Your task to perform on an android device: Do I have any events this weekend? Image 0: 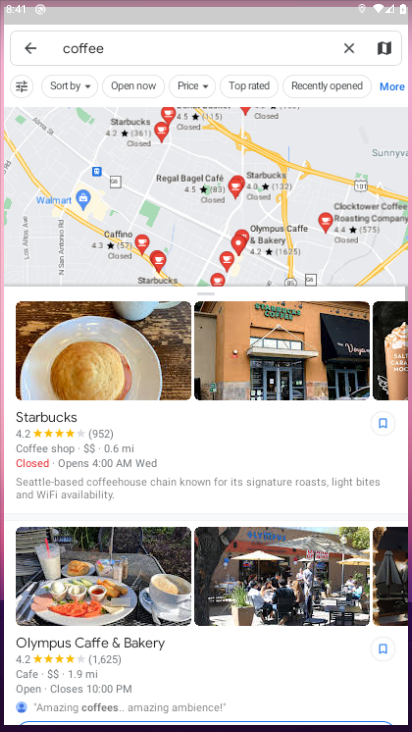
Step 0: press home button
Your task to perform on an android device: Do I have any events this weekend? Image 1: 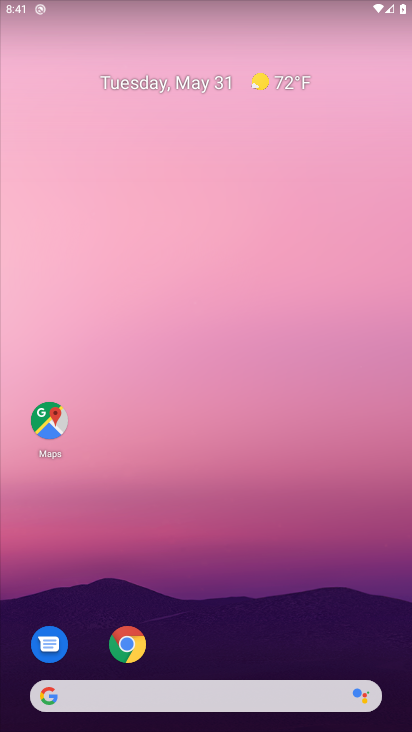
Step 1: drag from (212, 649) to (226, 79)
Your task to perform on an android device: Do I have any events this weekend? Image 2: 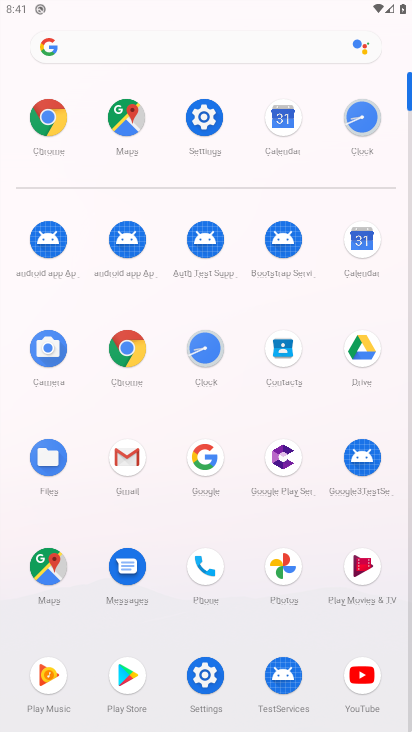
Step 2: click (362, 236)
Your task to perform on an android device: Do I have any events this weekend? Image 3: 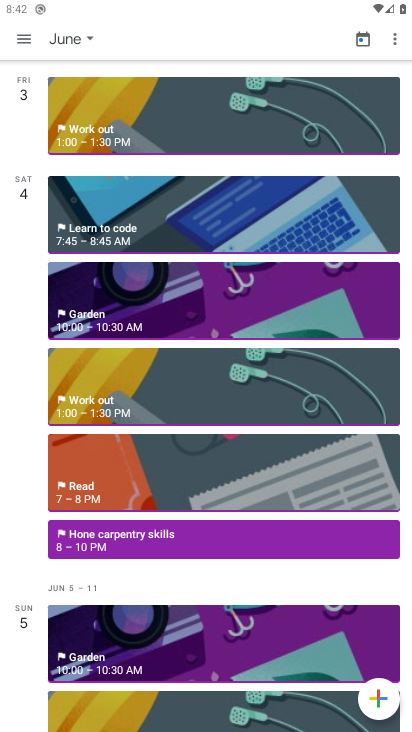
Step 3: task complete